Your task to perform on an android device: Go to accessibility settings Image 0: 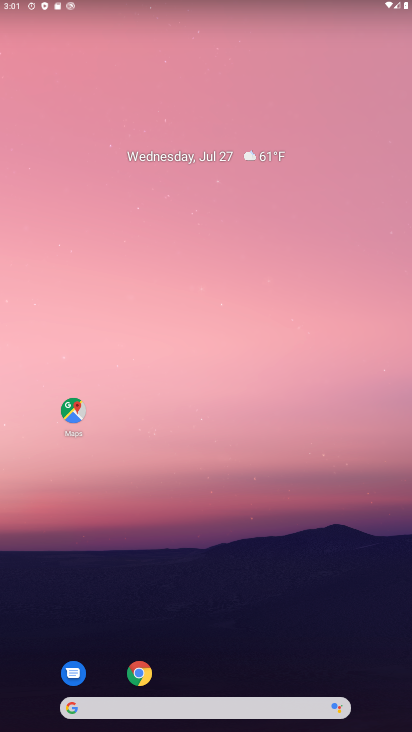
Step 0: drag from (103, 524) to (189, 112)
Your task to perform on an android device: Go to accessibility settings Image 1: 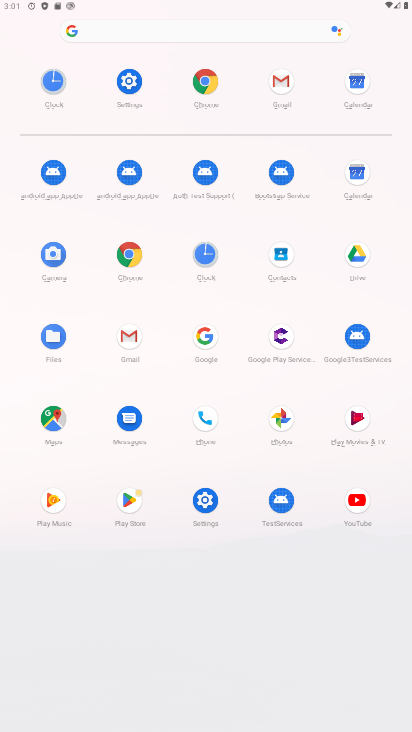
Step 1: click (195, 507)
Your task to perform on an android device: Go to accessibility settings Image 2: 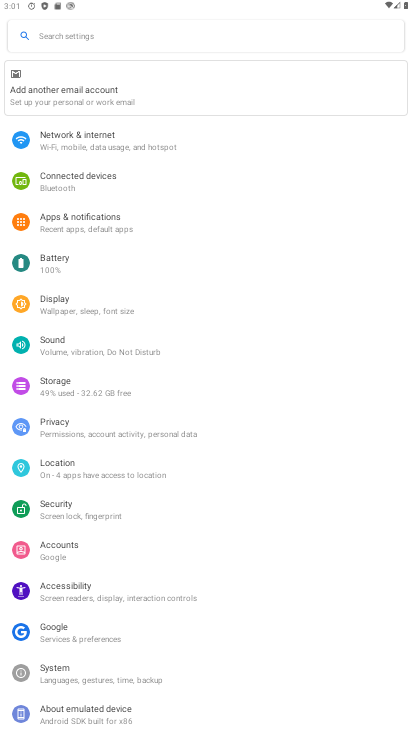
Step 2: click (76, 586)
Your task to perform on an android device: Go to accessibility settings Image 3: 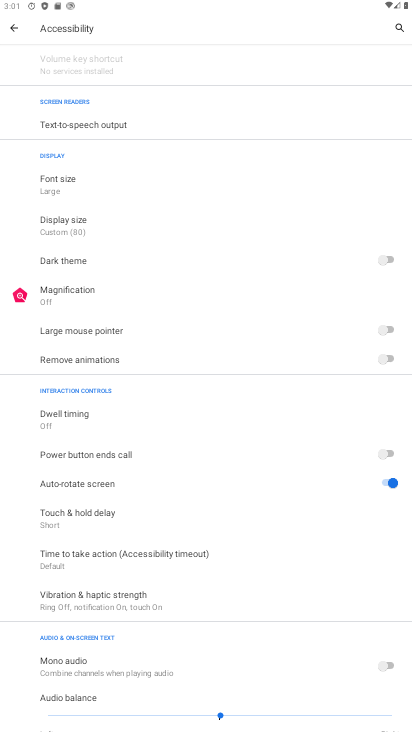
Step 3: task complete